Your task to perform on an android device: Find coffee shops on Maps Image 0: 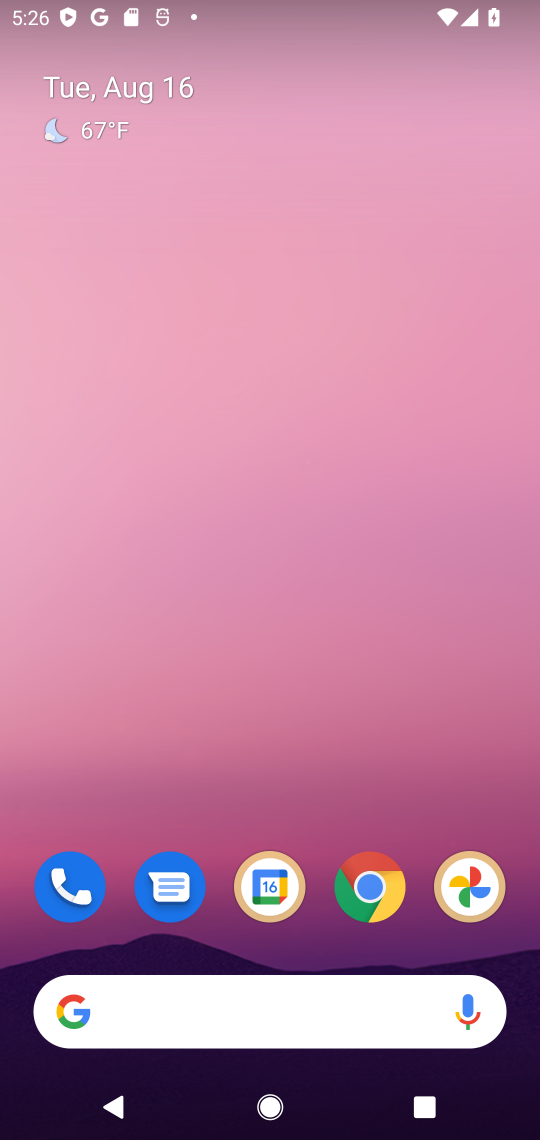
Step 0: drag from (339, 819) to (380, 36)
Your task to perform on an android device: Find coffee shops on Maps Image 1: 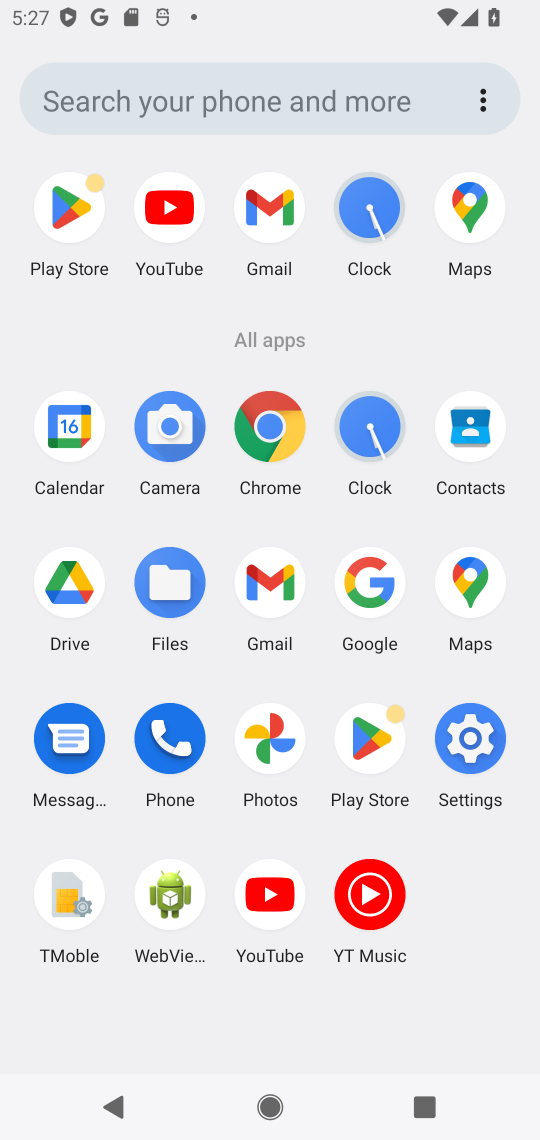
Step 1: click (481, 569)
Your task to perform on an android device: Find coffee shops on Maps Image 2: 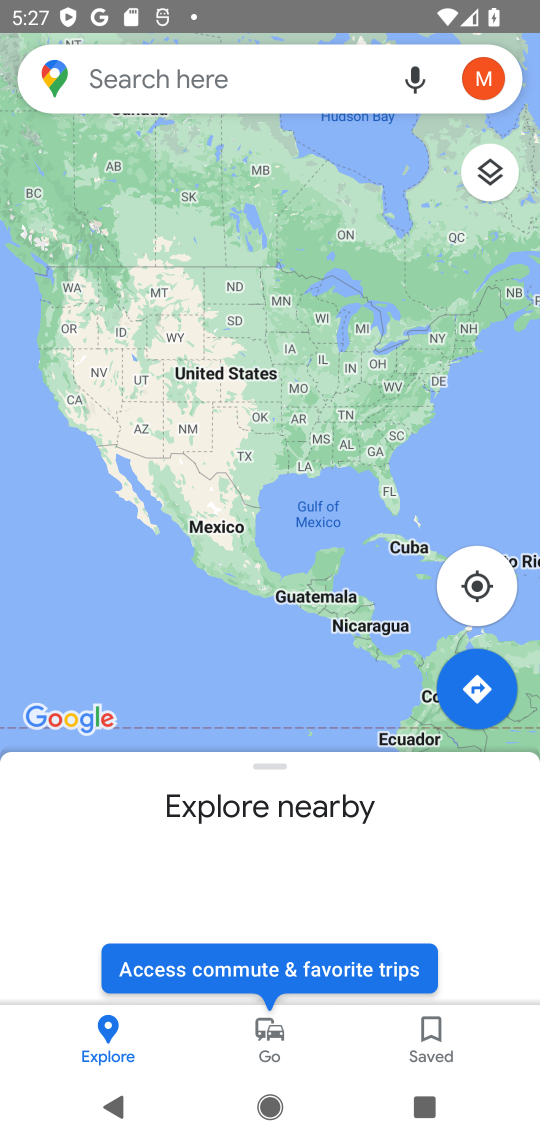
Step 2: click (215, 76)
Your task to perform on an android device: Find coffee shops on Maps Image 3: 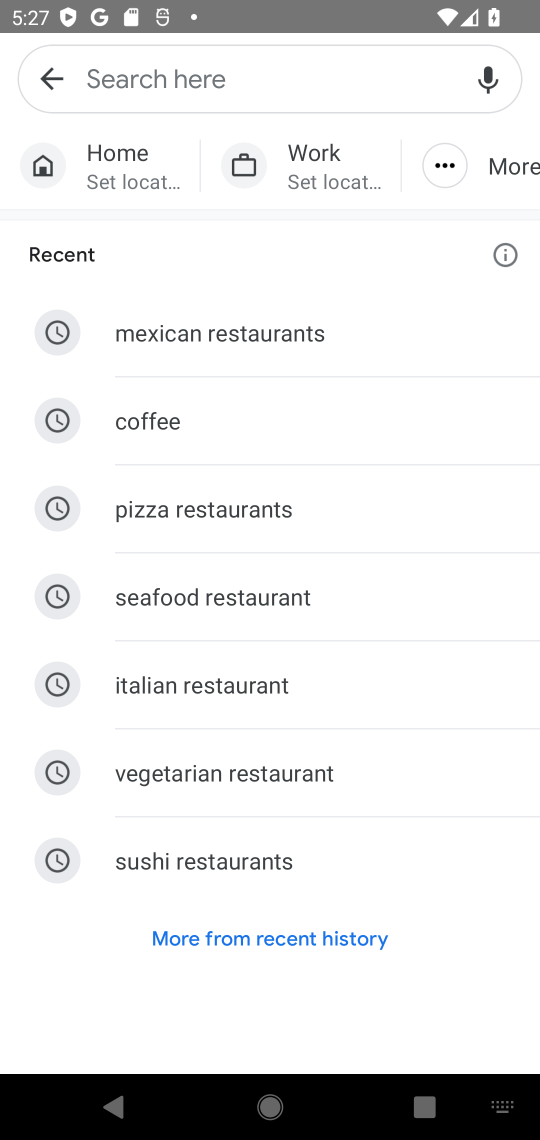
Step 3: type "coffee shops"
Your task to perform on an android device: Find coffee shops on Maps Image 4: 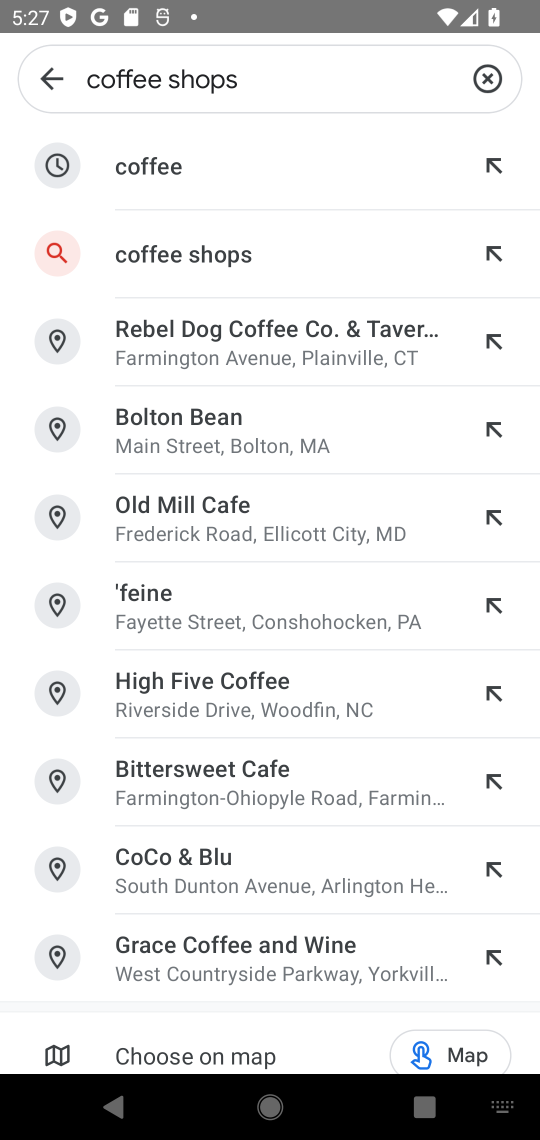
Step 4: click (243, 259)
Your task to perform on an android device: Find coffee shops on Maps Image 5: 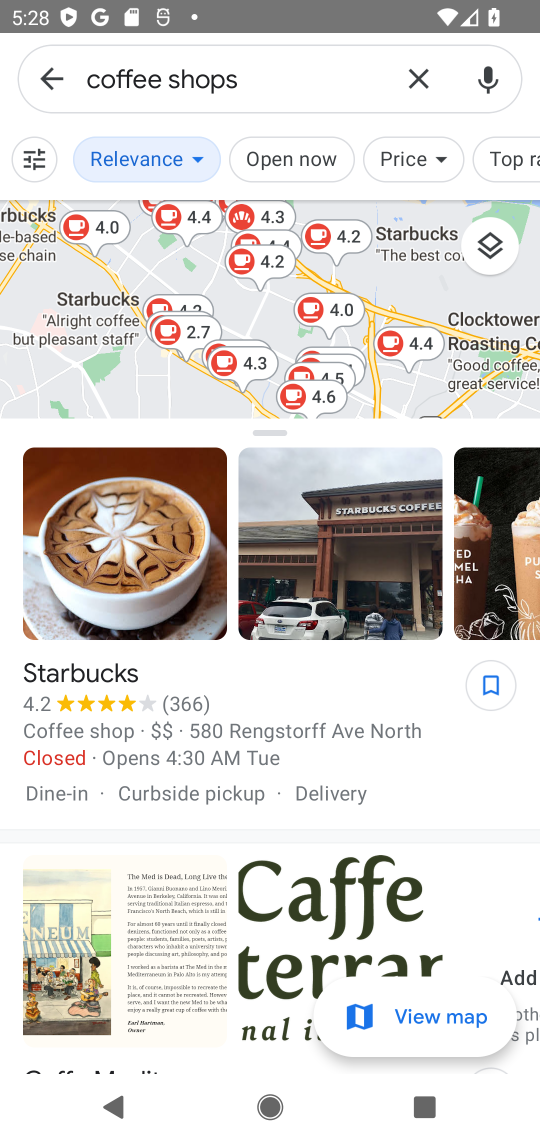
Step 5: task complete